Your task to perform on an android device: delete location history Image 0: 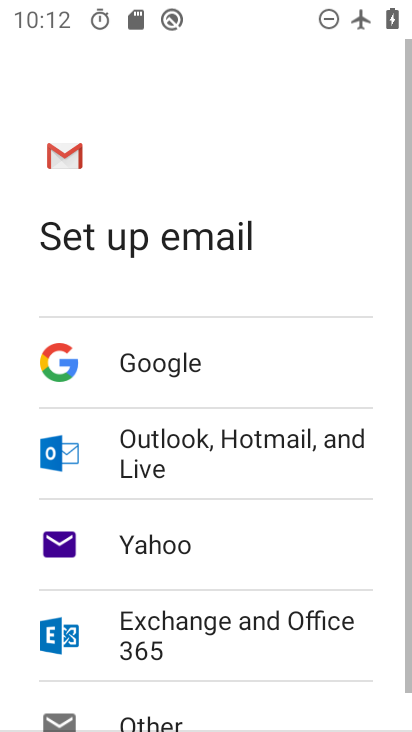
Step 0: press home button
Your task to perform on an android device: delete location history Image 1: 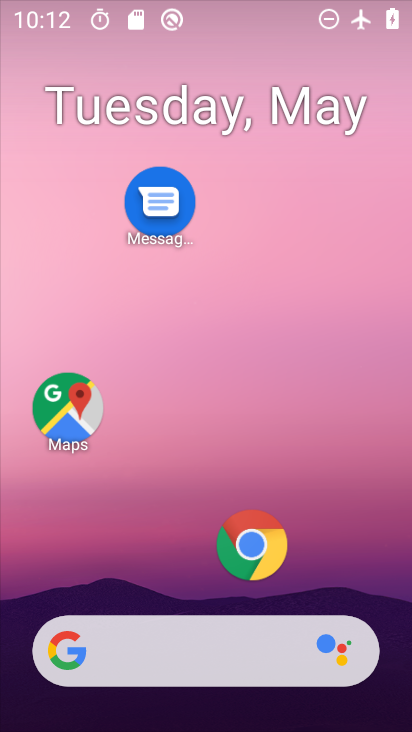
Step 1: drag from (179, 560) to (166, 259)
Your task to perform on an android device: delete location history Image 2: 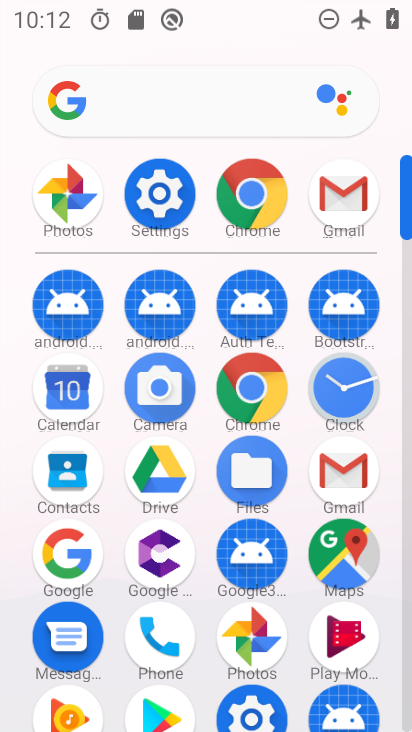
Step 2: click (330, 567)
Your task to perform on an android device: delete location history Image 3: 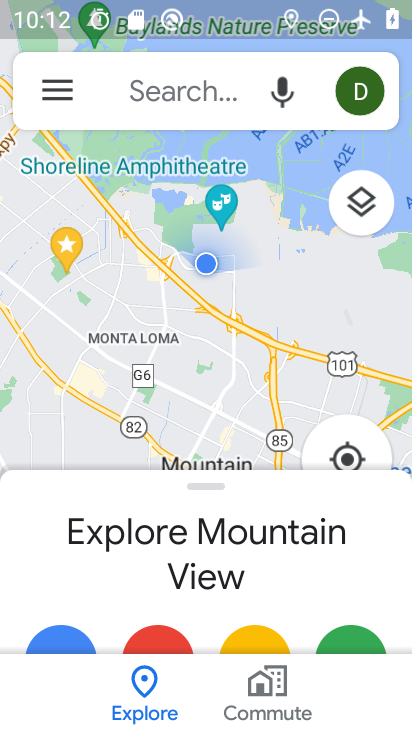
Step 3: click (61, 79)
Your task to perform on an android device: delete location history Image 4: 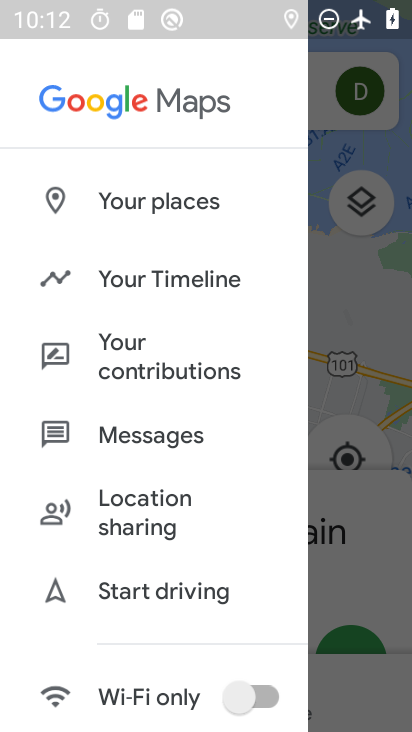
Step 4: click (167, 278)
Your task to perform on an android device: delete location history Image 5: 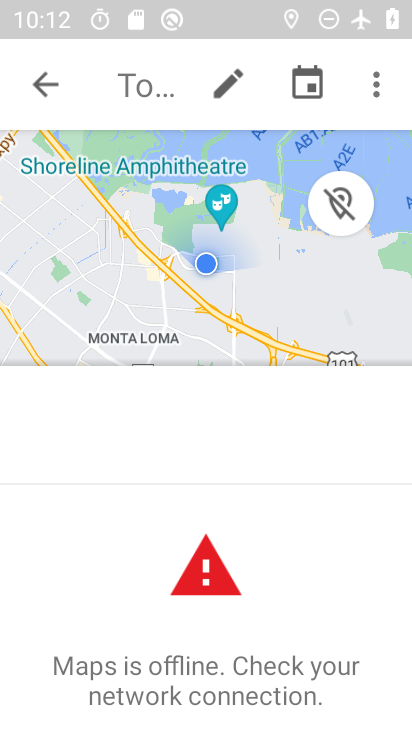
Step 5: click (369, 77)
Your task to perform on an android device: delete location history Image 6: 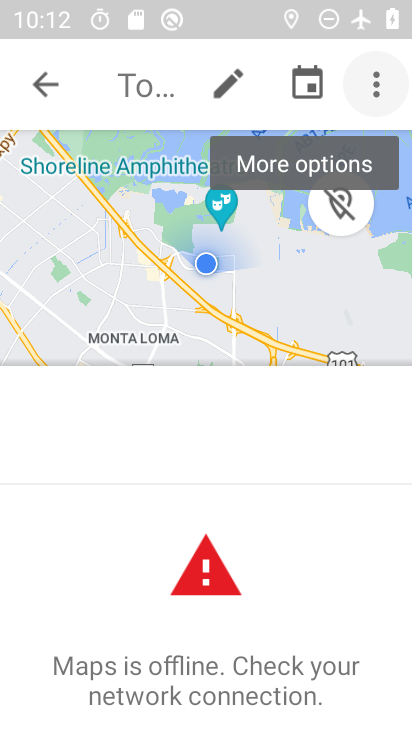
Step 6: click (369, 77)
Your task to perform on an android device: delete location history Image 7: 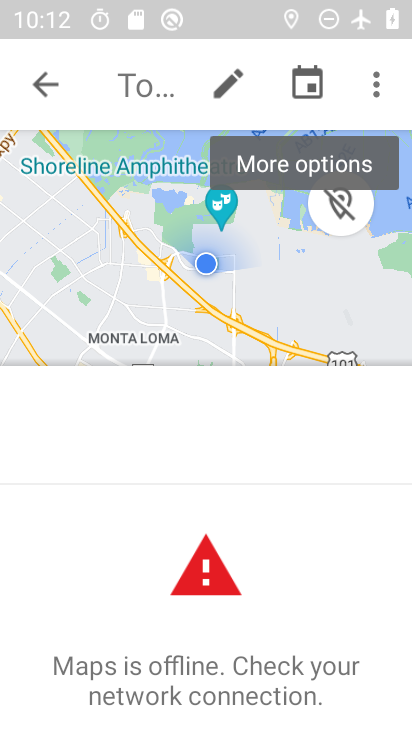
Step 7: click (369, 77)
Your task to perform on an android device: delete location history Image 8: 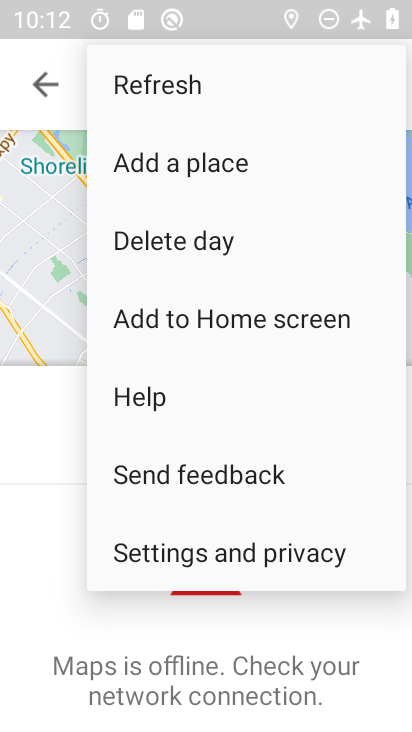
Step 8: click (162, 554)
Your task to perform on an android device: delete location history Image 9: 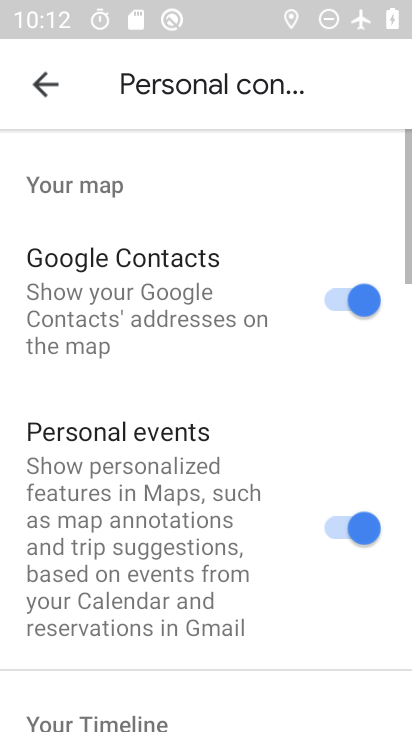
Step 9: drag from (190, 610) to (234, 234)
Your task to perform on an android device: delete location history Image 10: 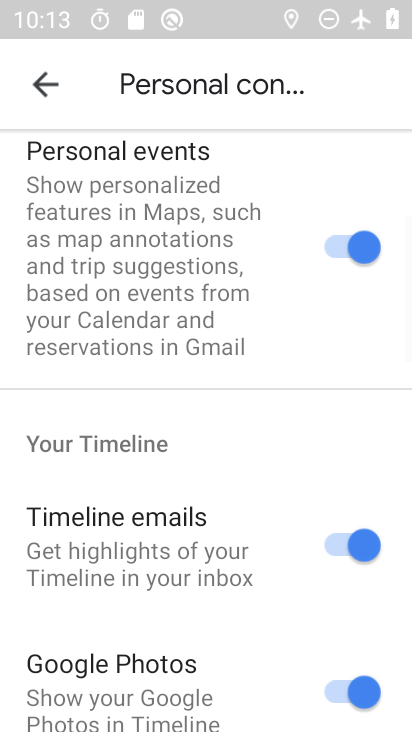
Step 10: drag from (227, 610) to (246, 226)
Your task to perform on an android device: delete location history Image 11: 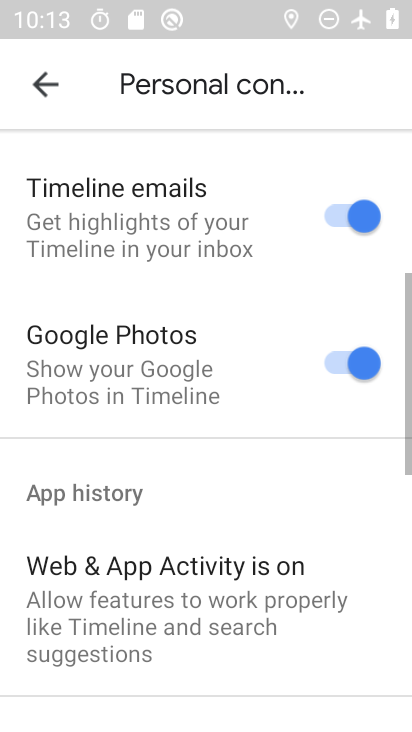
Step 11: drag from (208, 659) to (233, 247)
Your task to perform on an android device: delete location history Image 12: 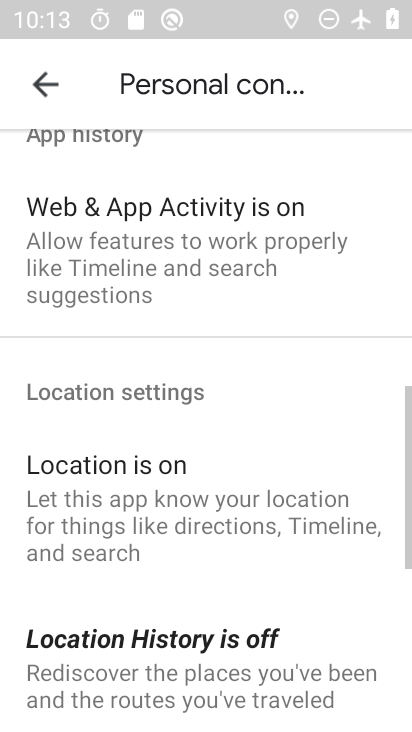
Step 12: drag from (231, 580) to (235, 290)
Your task to perform on an android device: delete location history Image 13: 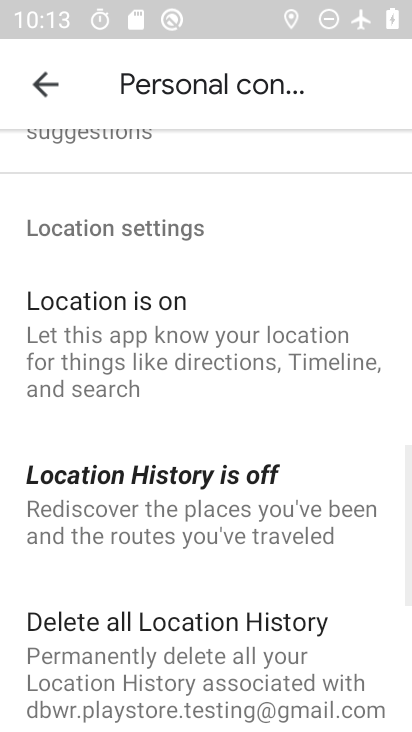
Step 13: drag from (224, 614) to (212, 346)
Your task to perform on an android device: delete location history Image 14: 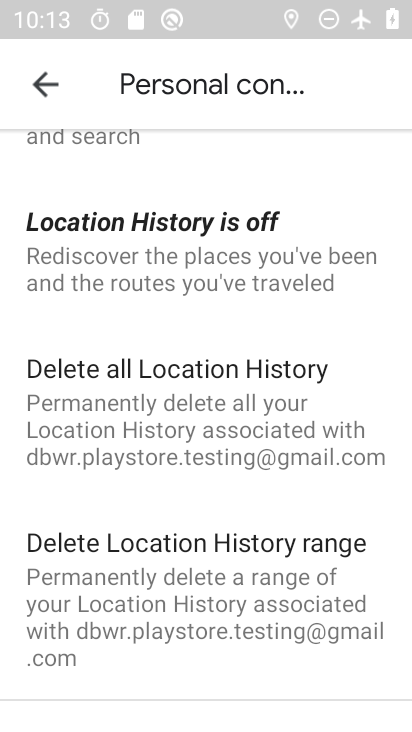
Step 14: click (212, 377)
Your task to perform on an android device: delete location history Image 15: 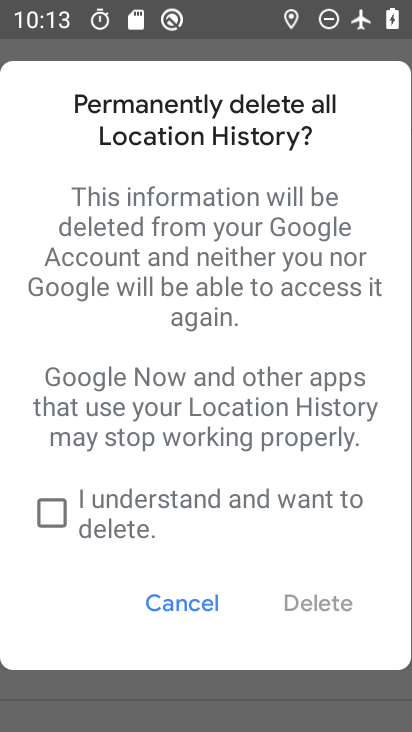
Step 15: click (66, 499)
Your task to perform on an android device: delete location history Image 16: 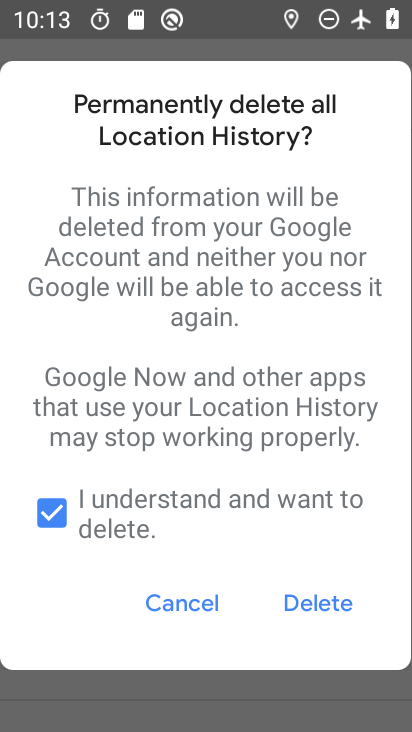
Step 16: click (309, 603)
Your task to perform on an android device: delete location history Image 17: 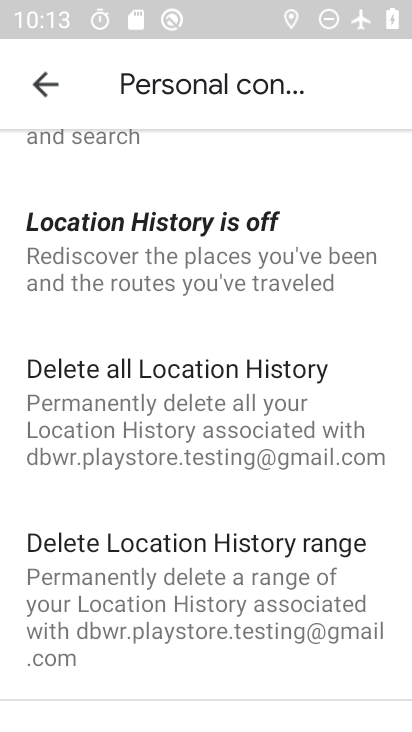
Step 17: task complete